Your task to perform on an android device: Show me the alarms in the clock app Image 0: 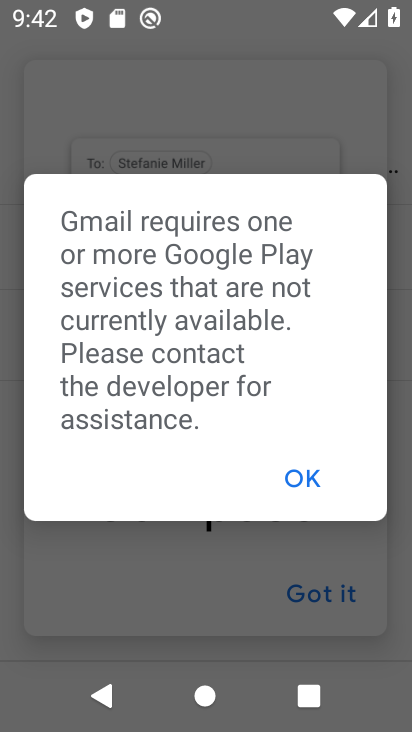
Step 0: press back button
Your task to perform on an android device: Show me the alarms in the clock app Image 1: 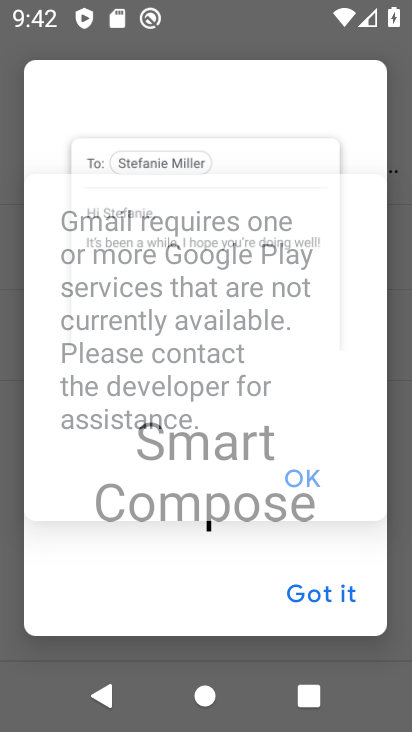
Step 1: press back button
Your task to perform on an android device: Show me the alarms in the clock app Image 2: 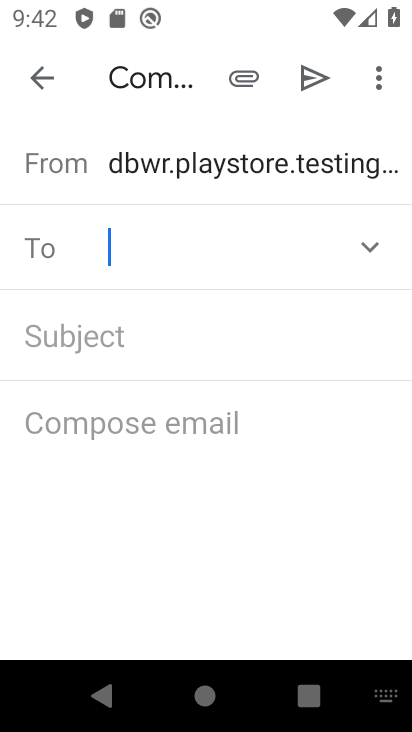
Step 2: press home button
Your task to perform on an android device: Show me the alarms in the clock app Image 3: 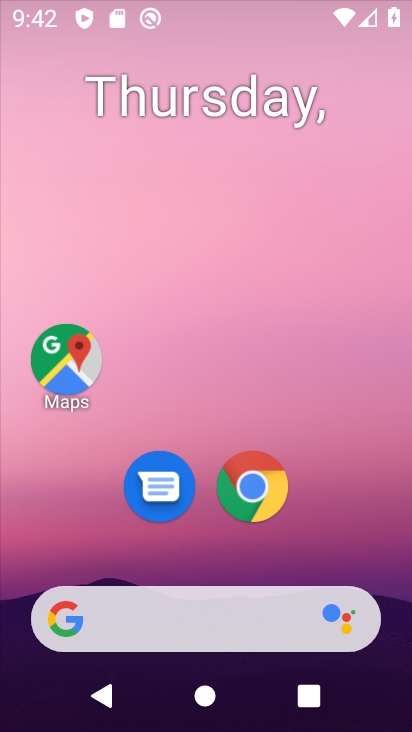
Step 3: drag from (199, 530) to (322, 7)
Your task to perform on an android device: Show me the alarms in the clock app Image 4: 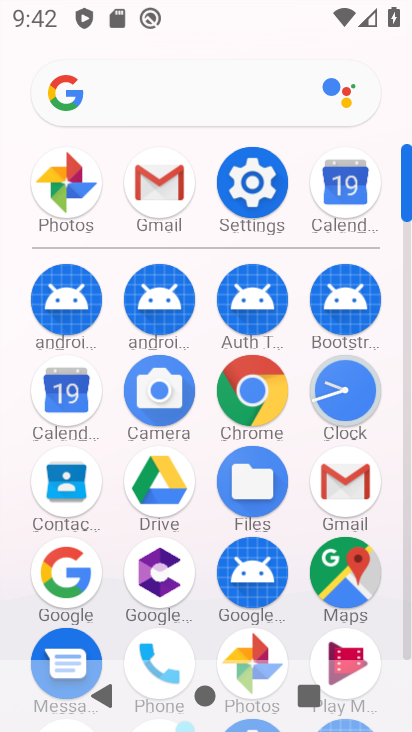
Step 4: click (361, 370)
Your task to perform on an android device: Show me the alarms in the clock app Image 5: 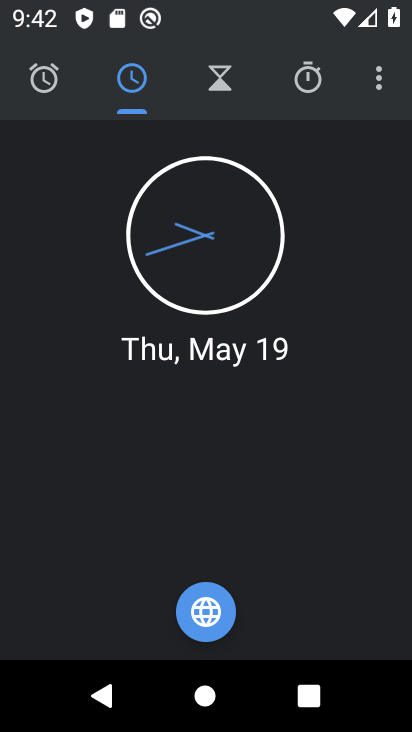
Step 5: click (43, 65)
Your task to perform on an android device: Show me the alarms in the clock app Image 6: 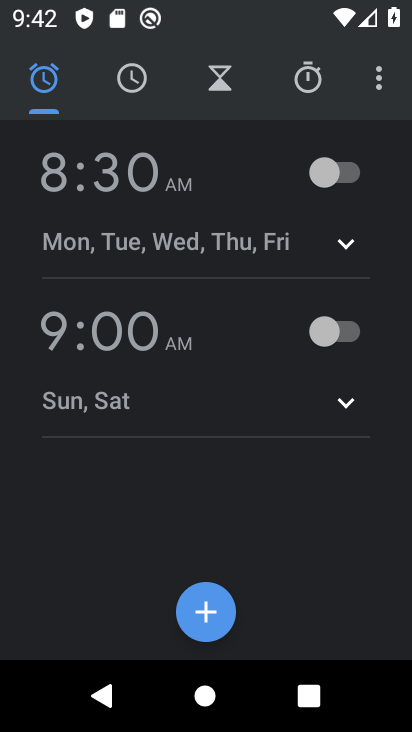
Step 6: task complete